Your task to perform on an android device: Do I have any events this weekend? Image 0: 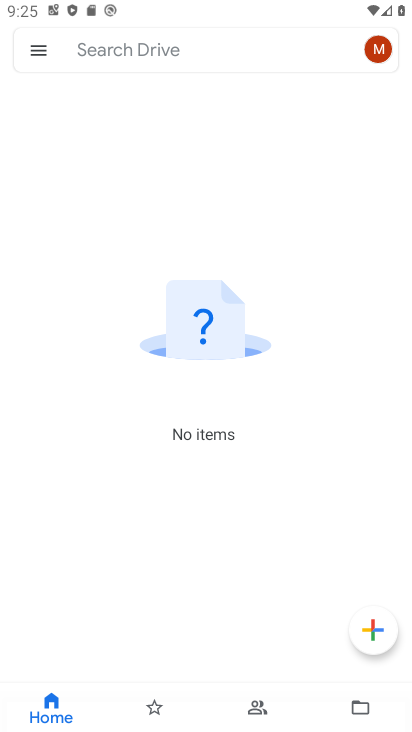
Step 0: press home button
Your task to perform on an android device: Do I have any events this weekend? Image 1: 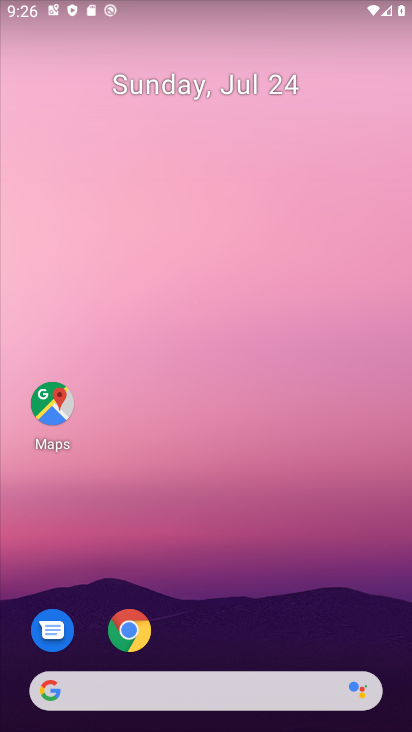
Step 1: drag from (207, 605) to (193, 27)
Your task to perform on an android device: Do I have any events this weekend? Image 2: 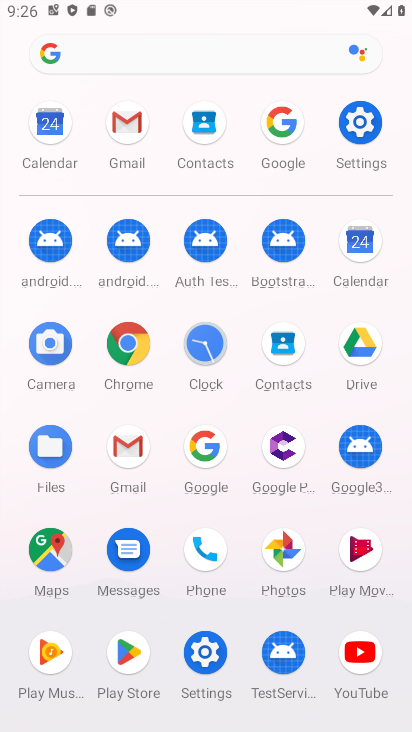
Step 2: click (355, 243)
Your task to perform on an android device: Do I have any events this weekend? Image 3: 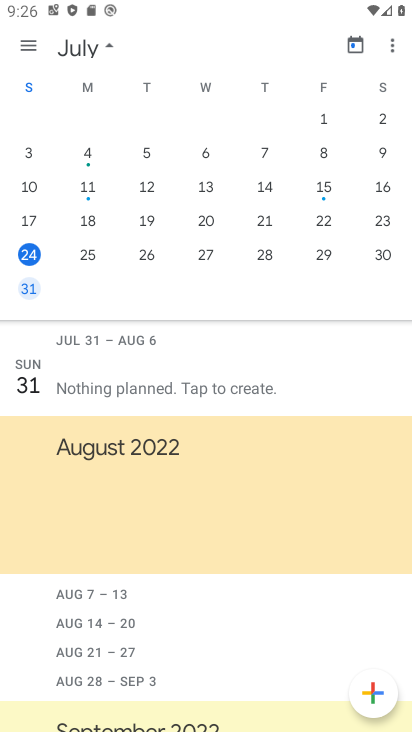
Step 3: click (387, 261)
Your task to perform on an android device: Do I have any events this weekend? Image 4: 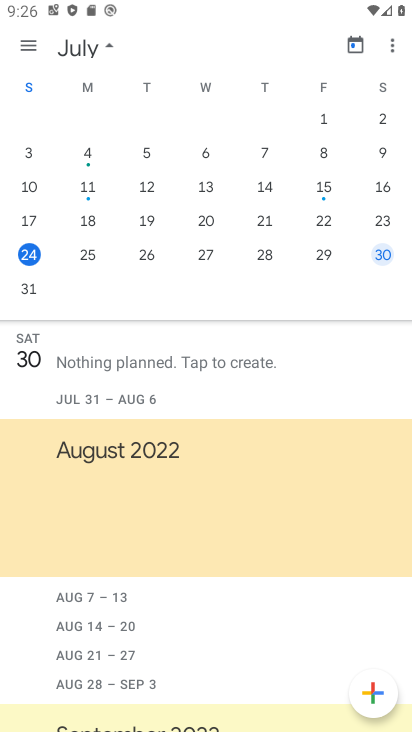
Step 4: task complete